Your task to perform on an android device: Open sound settings Image 0: 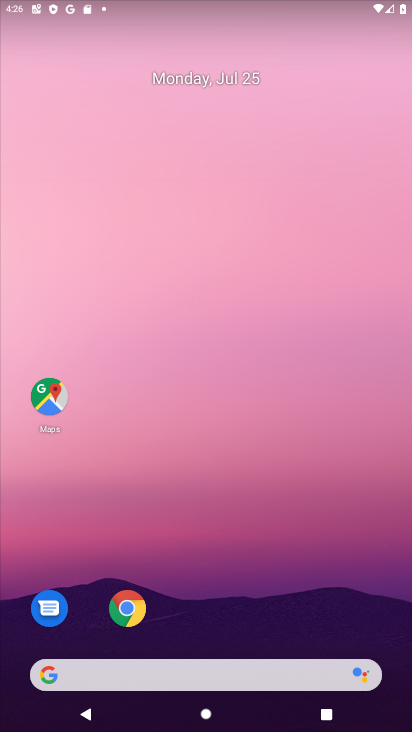
Step 0: drag from (214, 619) to (256, 48)
Your task to perform on an android device: Open sound settings Image 1: 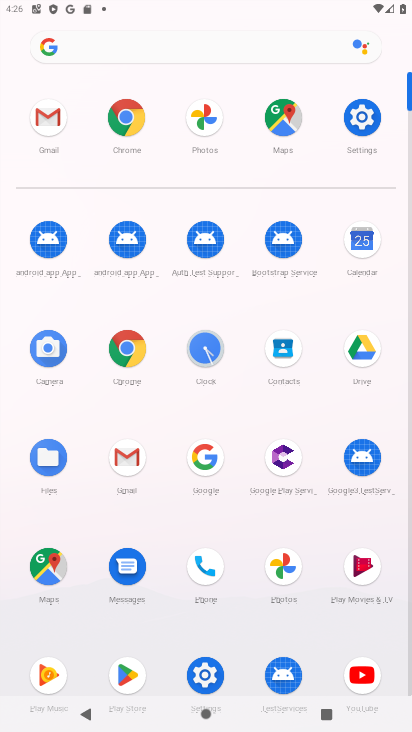
Step 1: click (357, 111)
Your task to perform on an android device: Open sound settings Image 2: 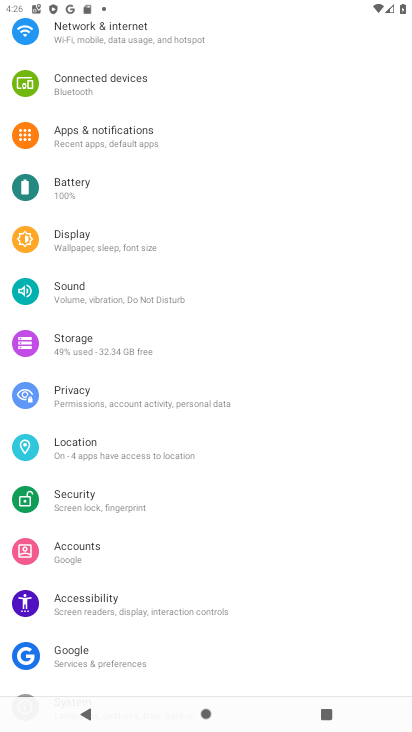
Step 2: click (101, 284)
Your task to perform on an android device: Open sound settings Image 3: 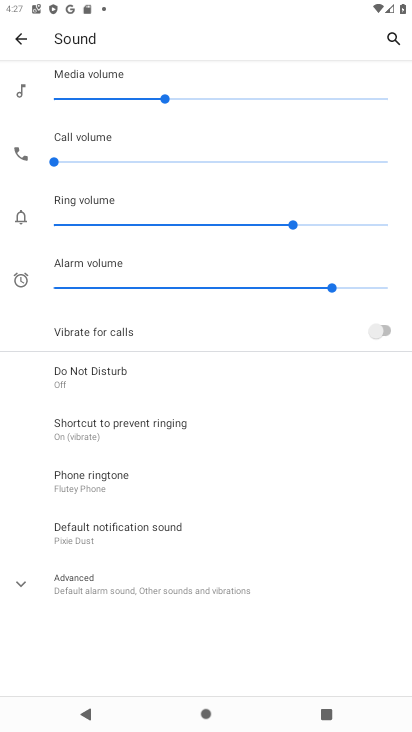
Step 3: task complete